Your task to perform on an android device: Go to Reddit.com Image 0: 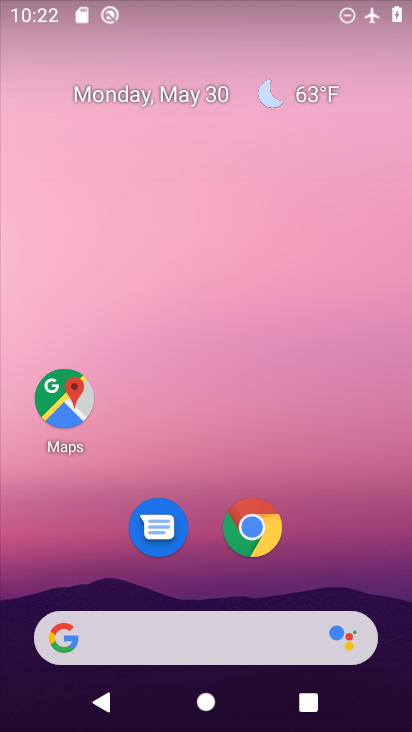
Step 0: click (254, 513)
Your task to perform on an android device: Go to Reddit.com Image 1: 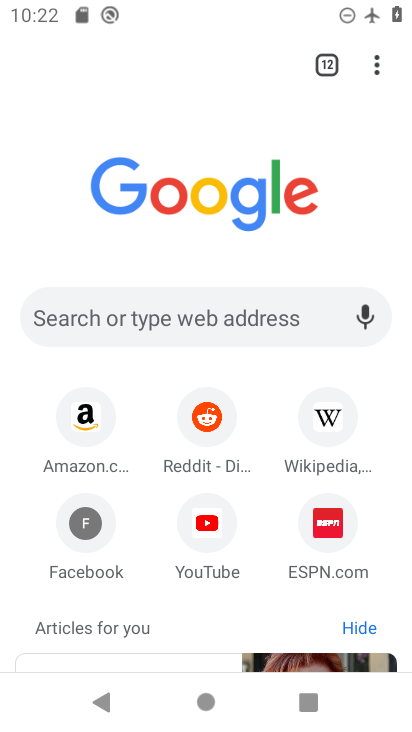
Step 1: click (227, 311)
Your task to perform on an android device: Go to Reddit.com Image 2: 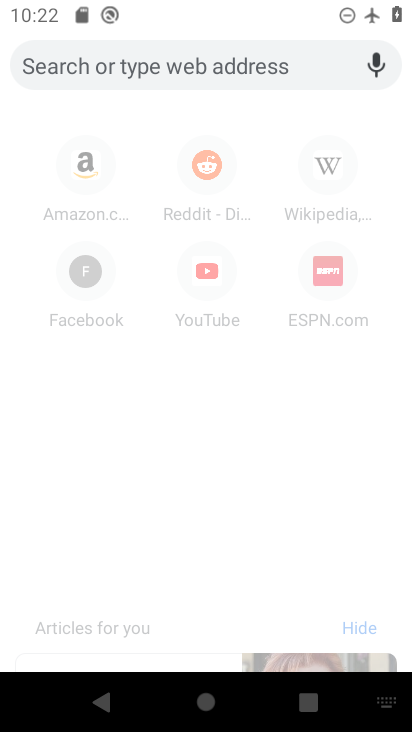
Step 2: type " Reddit.com"
Your task to perform on an android device: Go to Reddit.com Image 3: 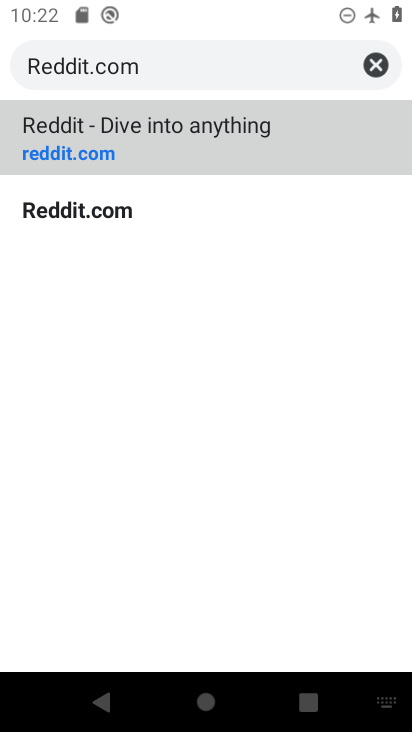
Step 3: click (136, 148)
Your task to perform on an android device: Go to Reddit.com Image 4: 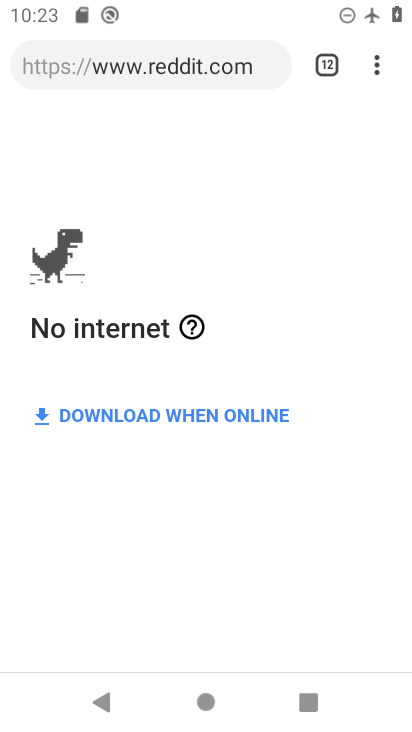
Step 4: task complete